Your task to perform on an android device: Play the last video I watched on Youtube Image 0: 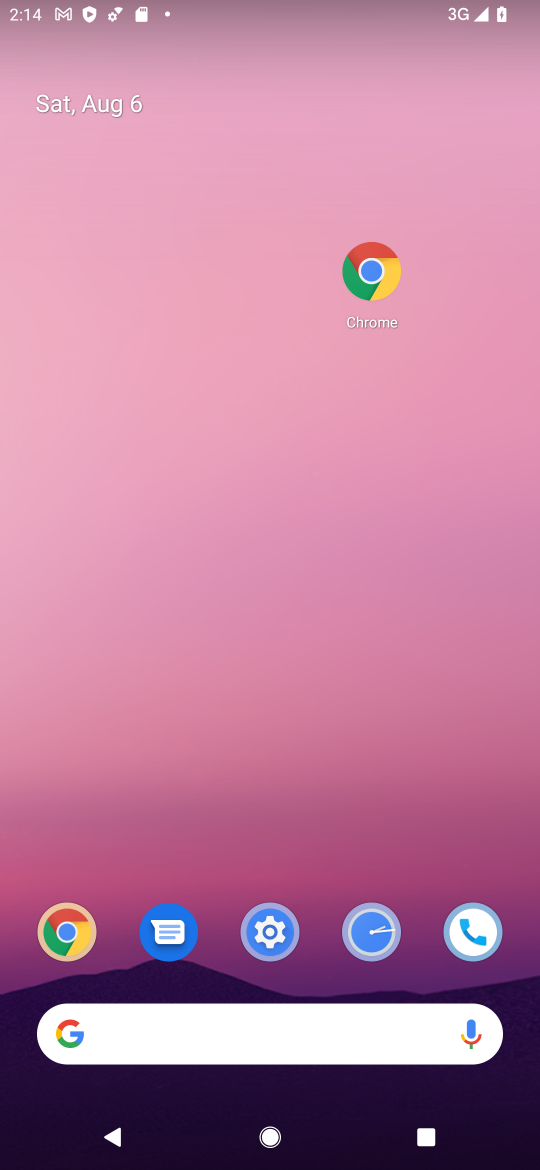
Step 0: drag from (321, 843) to (226, 78)
Your task to perform on an android device: Play the last video I watched on Youtube Image 1: 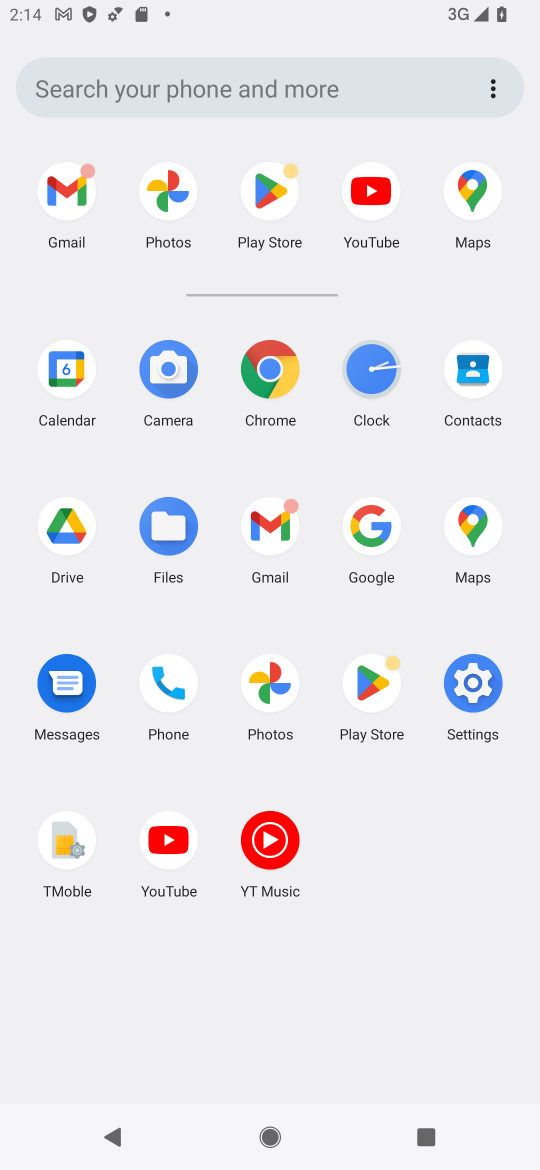
Step 1: click (171, 832)
Your task to perform on an android device: Play the last video I watched on Youtube Image 2: 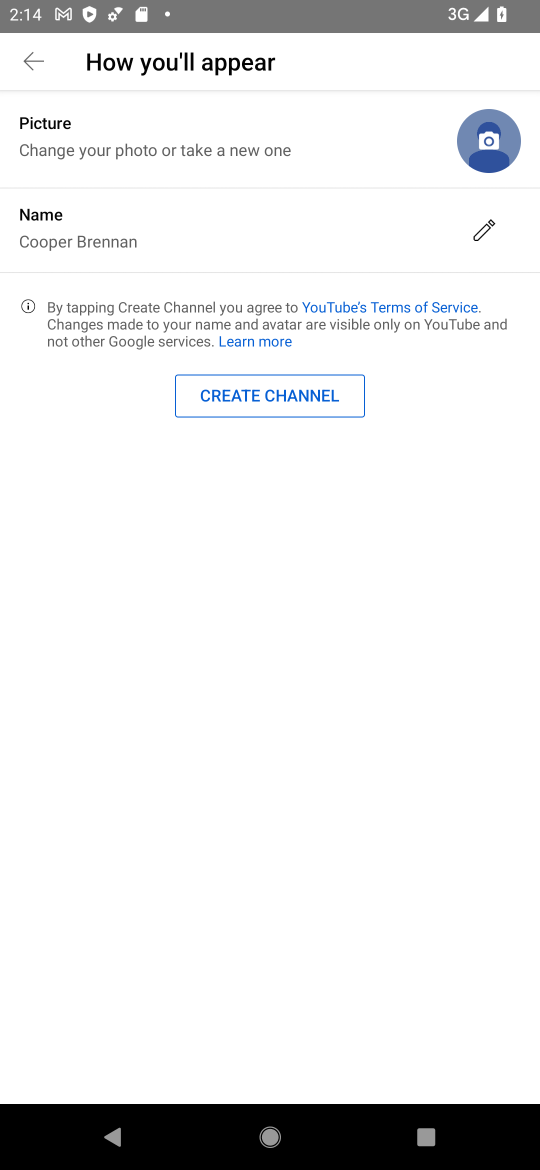
Step 2: press back button
Your task to perform on an android device: Play the last video I watched on Youtube Image 3: 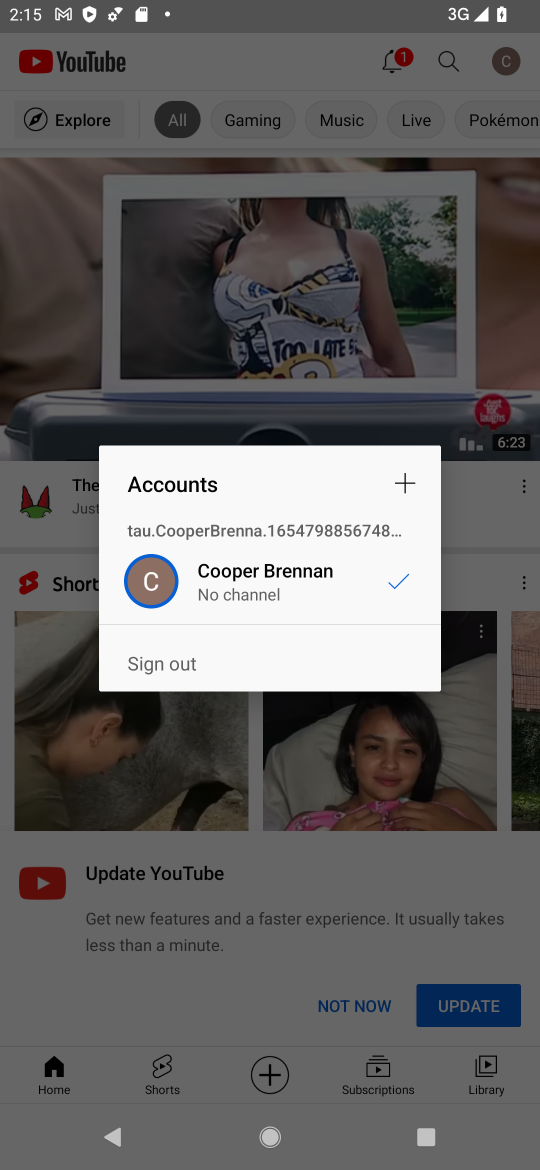
Step 3: click (388, 565)
Your task to perform on an android device: Play the last video I watched on Youtube Image 4: 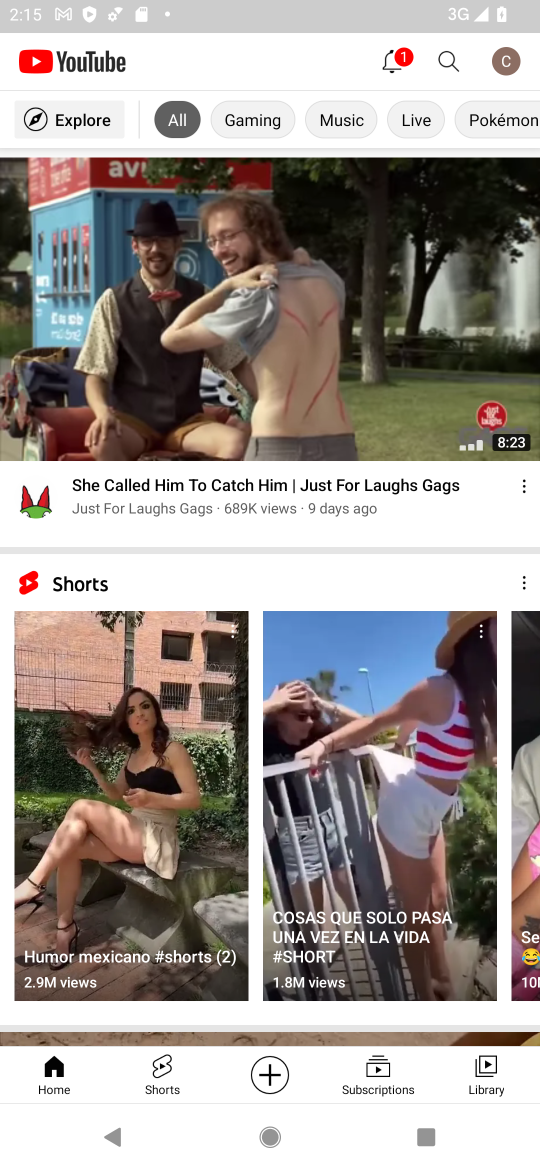
Step 4: click (478, 1064)
Your task to perform on an android device: Play the last video I watched on Youtube Image 5: 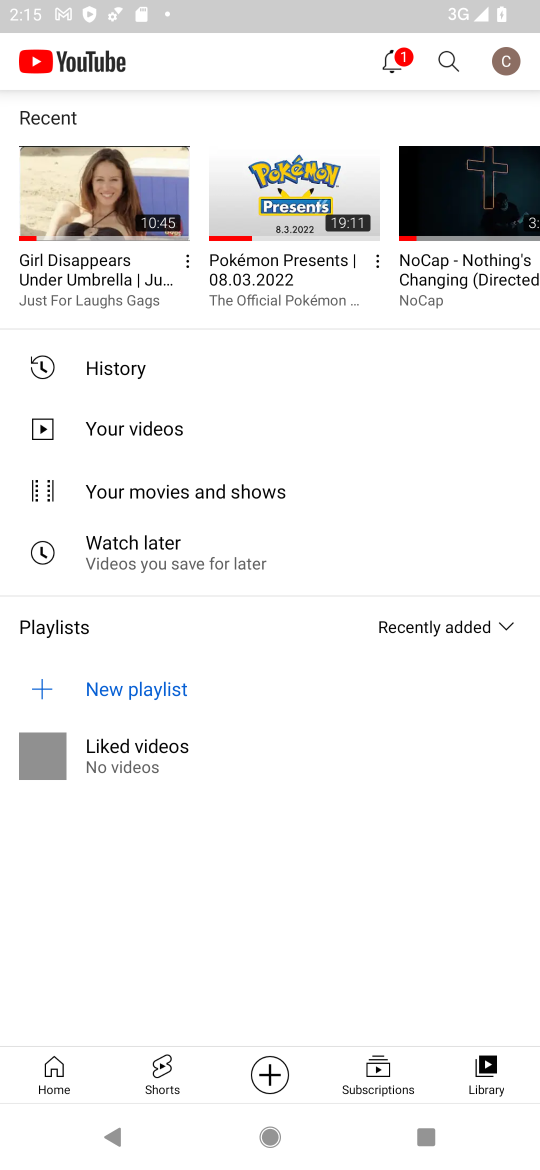
Step 5: click (106, 201)
Your task to perform on an android device: Play the last video I watched on Youtube Image 6: 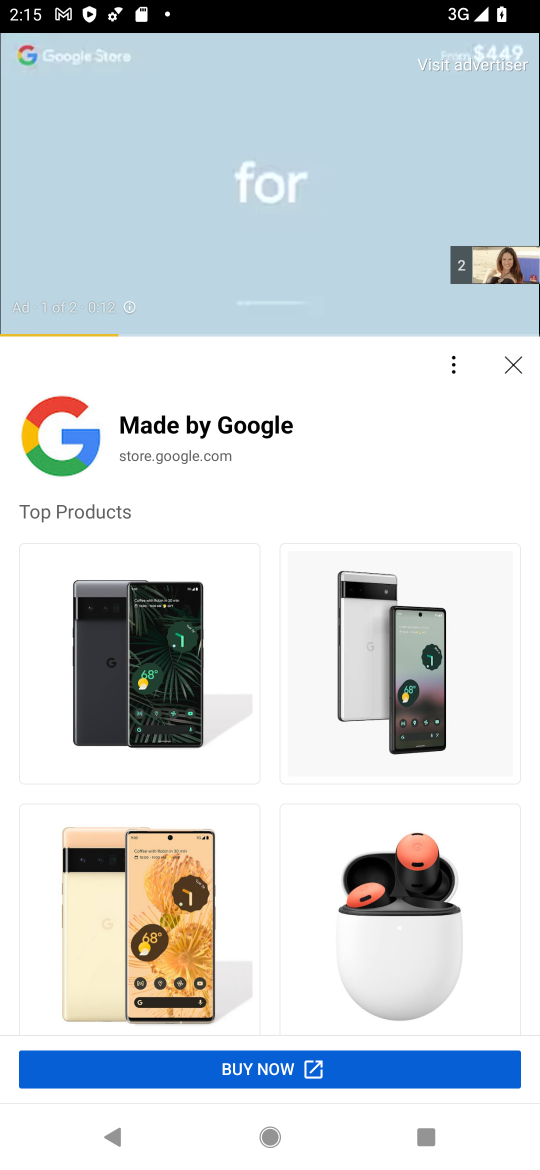
Step 6: task complete